Your task to perform on an android device: Open Chrome and go to the settings page Image 0: 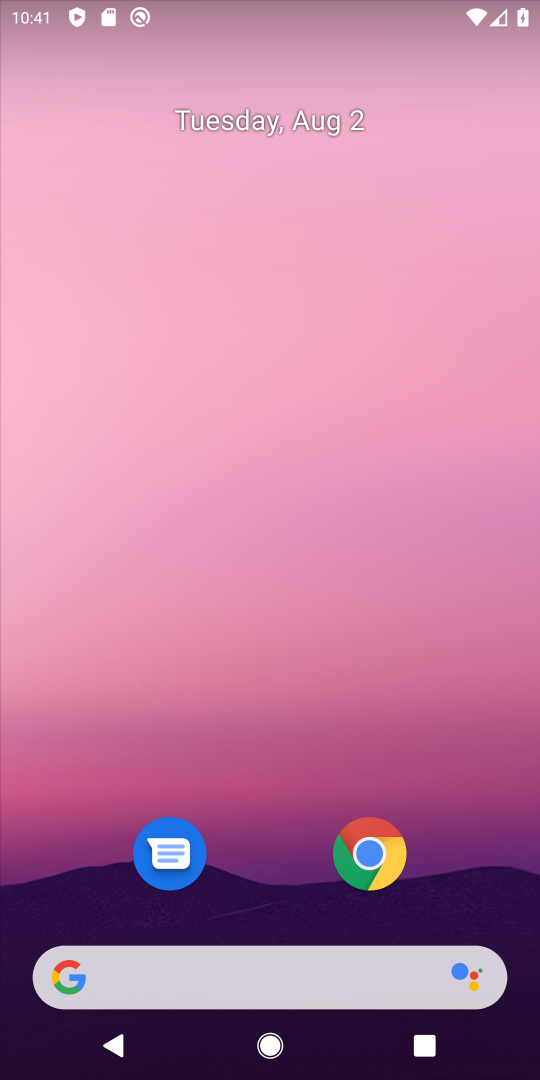
Step 0: click (377, 847)
Your task to perform on an android device: Open Chrome and go to the settings page Image 1: 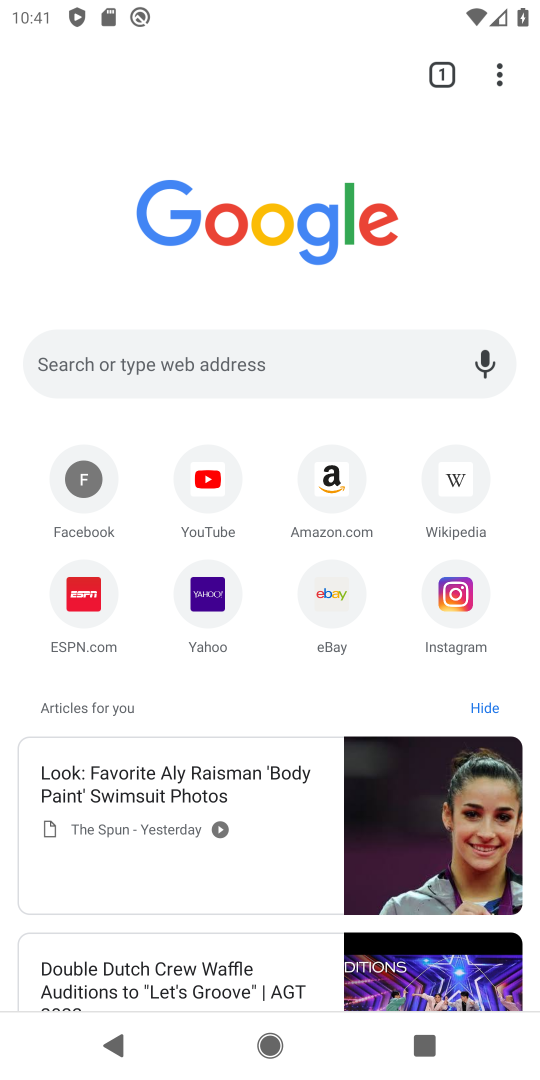
Step 1: click (501, 74)
Your task to perform on an android device: Open Chrome and go to the settings page Image 2: 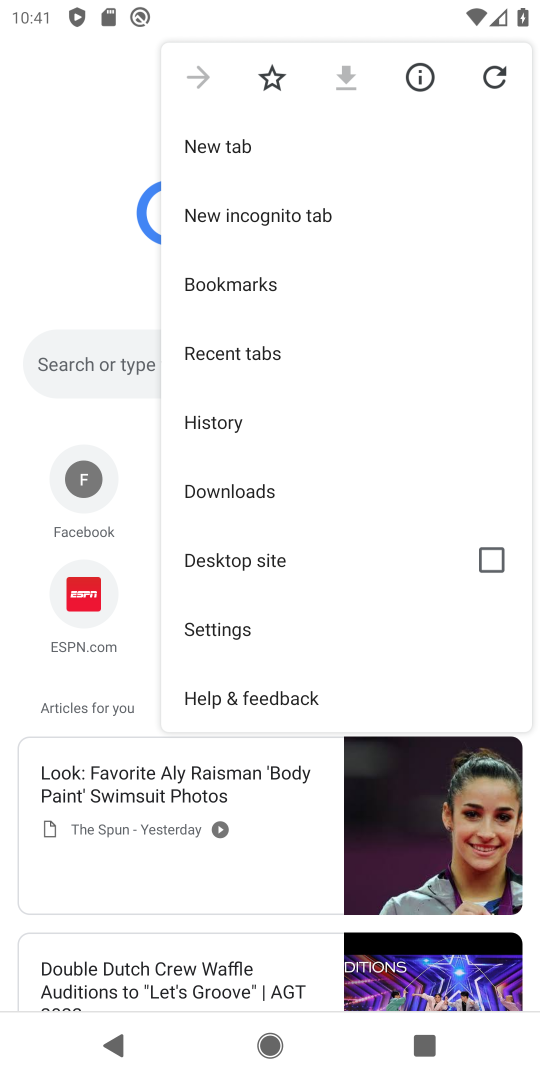
Step 2: click (280, 637)
Your task to perform on an android device: Open Chrome and go to the settings page Image 3: 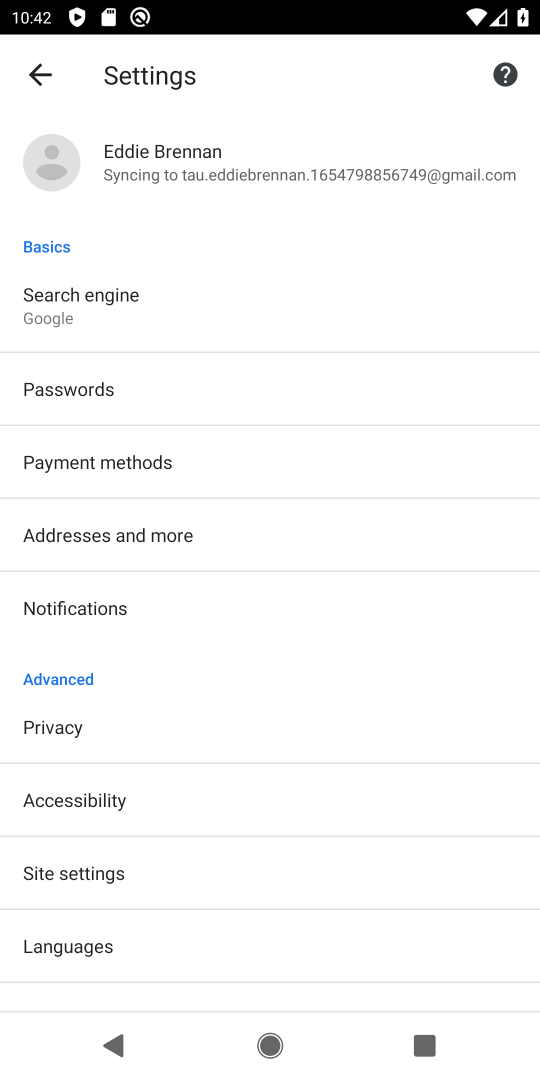
Step 3: task complete